Your task to perform on an android device: Check the news Image 0: 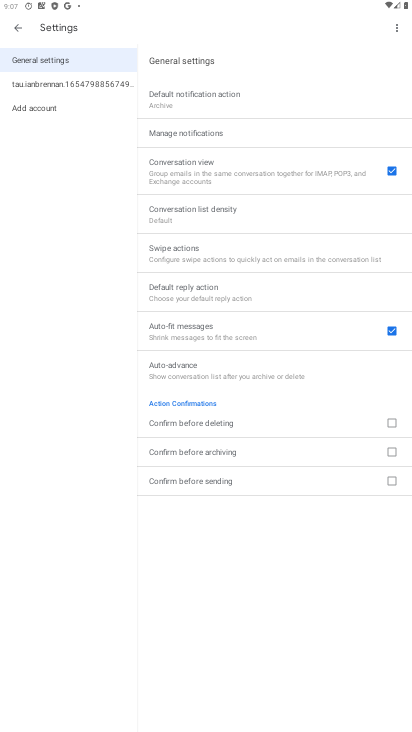
Step 0: click (94, 77)
Your task to perform on an android device: Check the news Image 1: 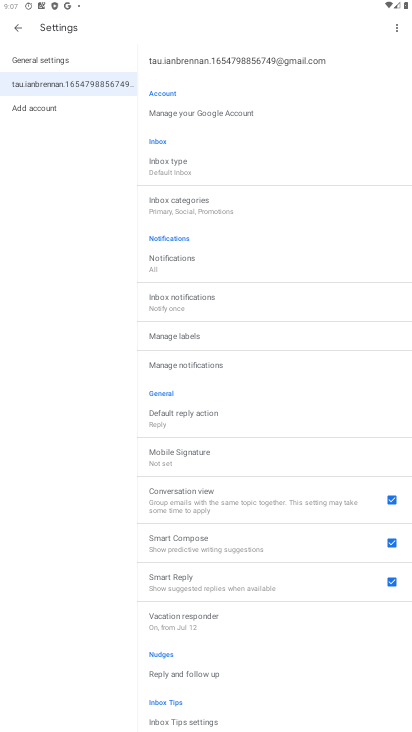
Step 1: drag from (261, 547) to (273, 168)
Your task to perform on an android device: Check the news Image 2: 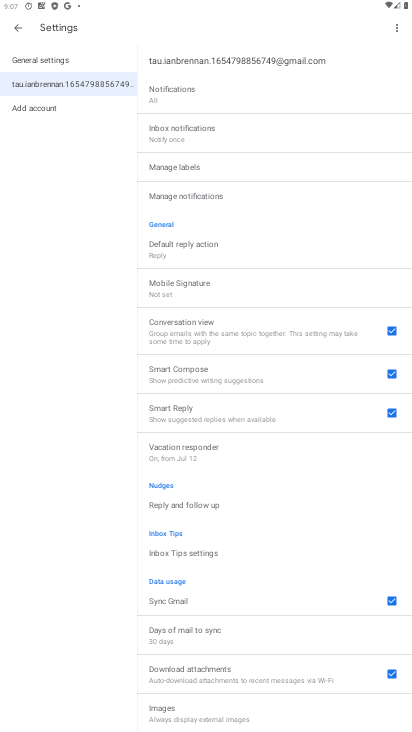
Step 2: press home button
Your task to perform on an android device: Check the news Image 3: 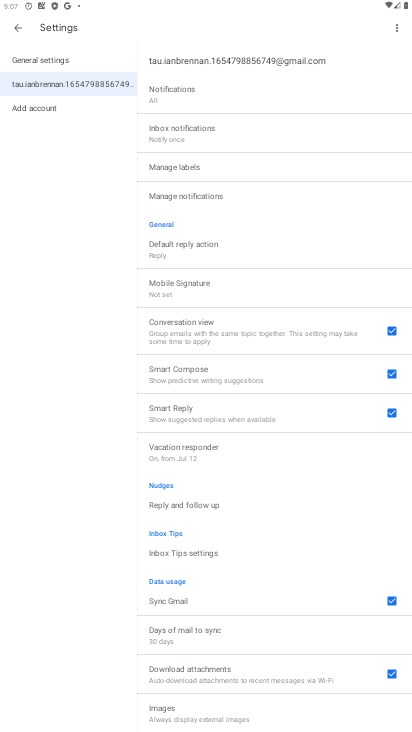
Step 3: drag from (199, 492) to (222, 343)
Your task to perform on an android device: Check the news Image 4: 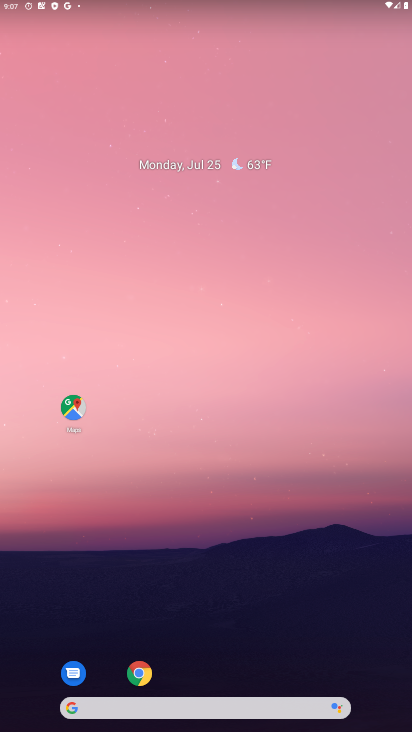
Step 4: drag from (188, 661) to (202, 109)
Your task to perform on an android device: Check the news Image 5: 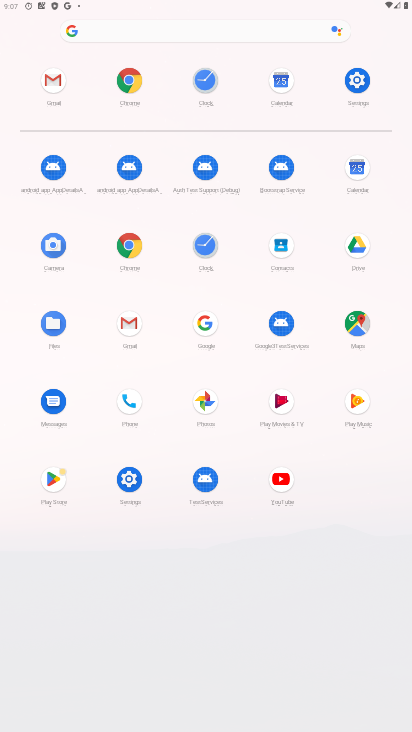
Step 5: click (131, 22)
Your task to perform on an android device: Check the news Image 6: 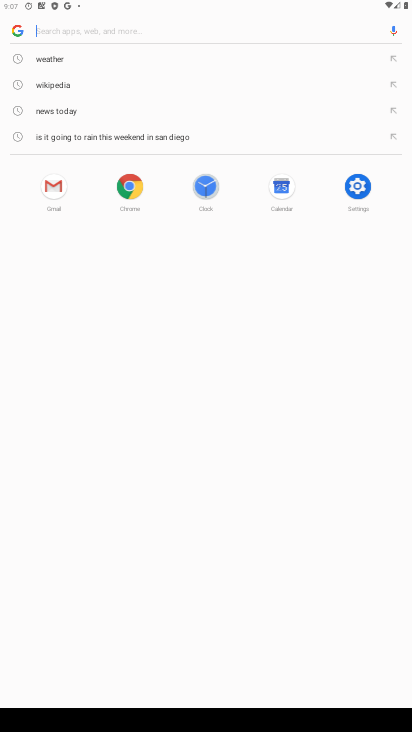
Step 6: type "news"
Your task to perform on an android device: Check the news Image 7: 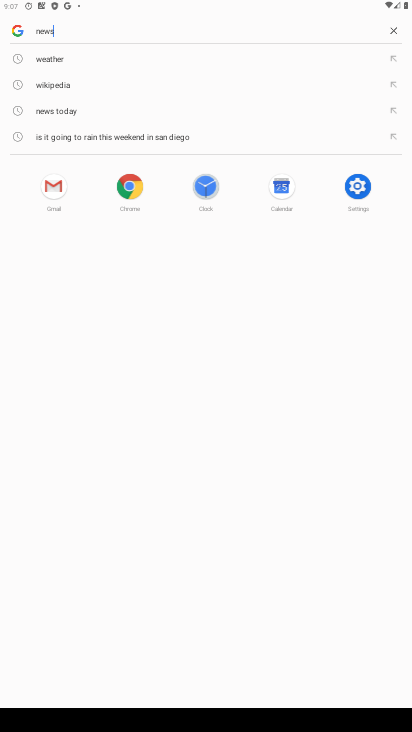
Step 7: type ""
Your task to perform on an android device: Check the news Image 8: 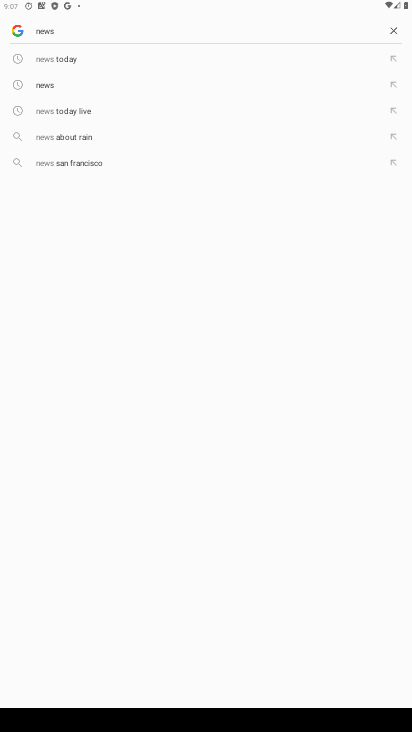
Step 8: click (99, 59)
Your task to perform on an android device: Check the news Image 9: 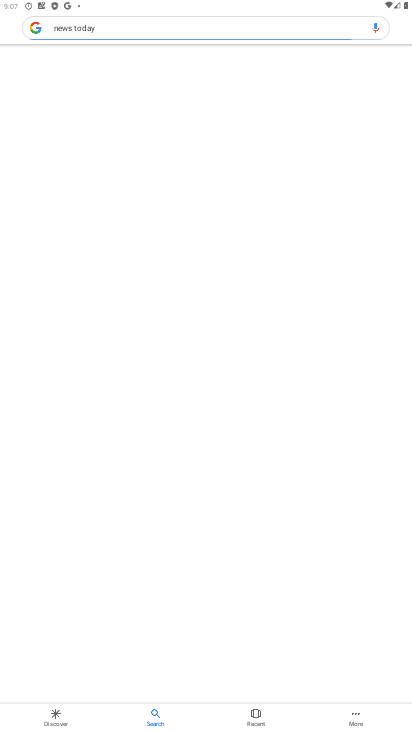
Step 9: drag from (191, 207) to (202, 142)
Your task to perform on an android device: Check the news Image 10: 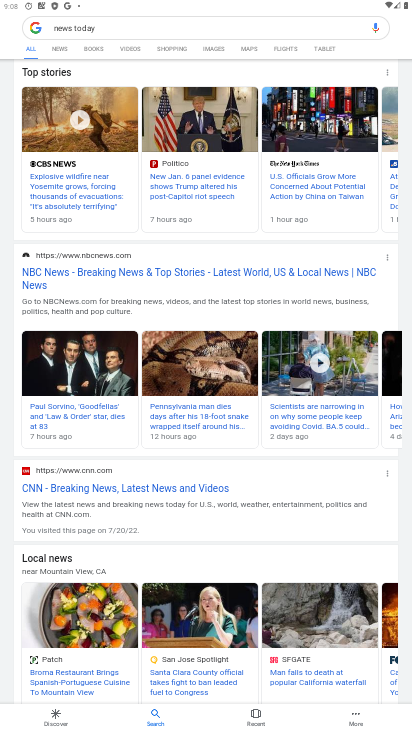
Step 10: drag from (218, 183) to (284, 699)
Your task to perform on an android device: Check the news Image 11: 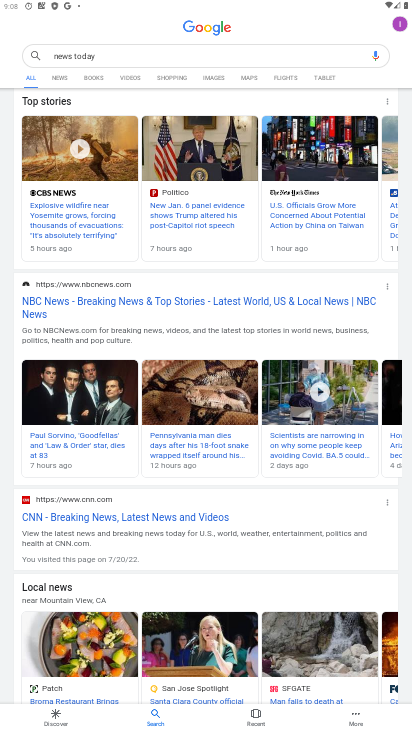
Step 11: drag from (258, 537) to (292, 297)
Your task to perform on an android device: Check the news Image 12: 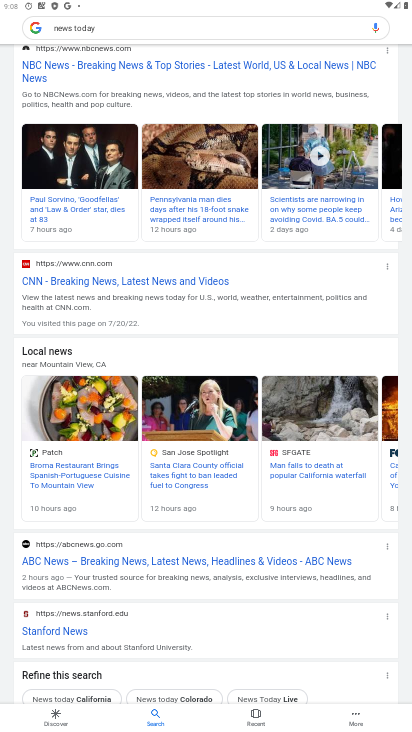
Step 12: click (63, 284)
Your task to perform on an android device: Check the news Image 13: 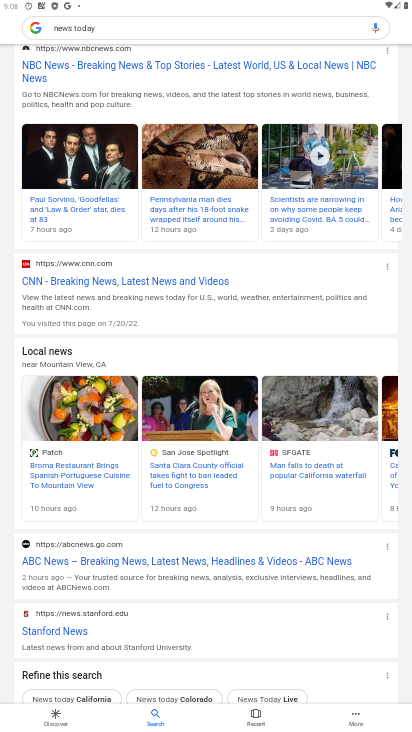
Step 13: task complete